Your task to perform on an android device: Open internet settings Image 0: 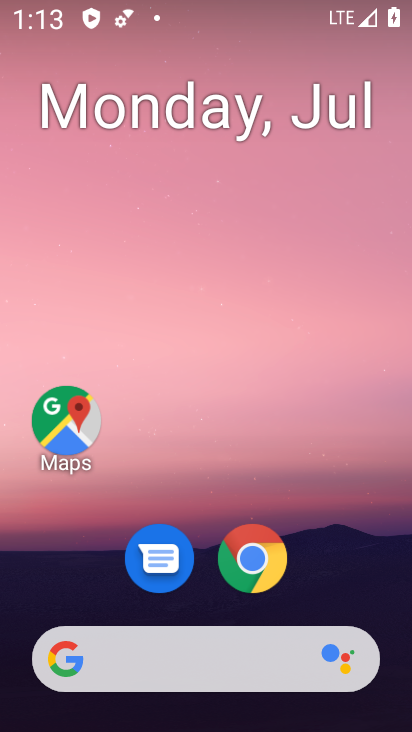
Step 0: drag from (357, 582) to (361, 61)
Your task to perform on an android device: Open internet settings Image 1: 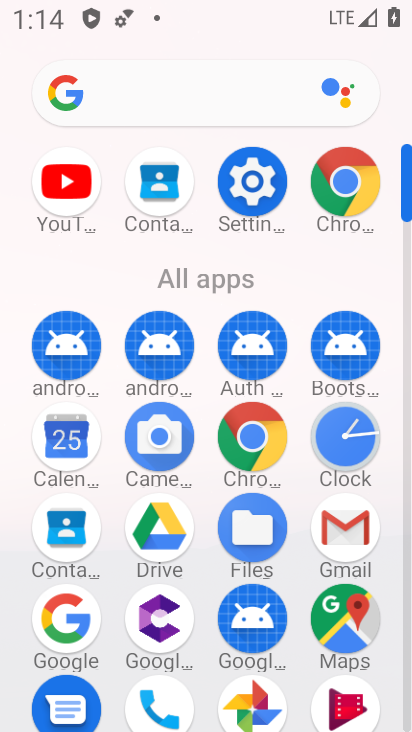
Step 1: click (254, 192)
Your task to perform on an android device: Open internet settings Image 2: 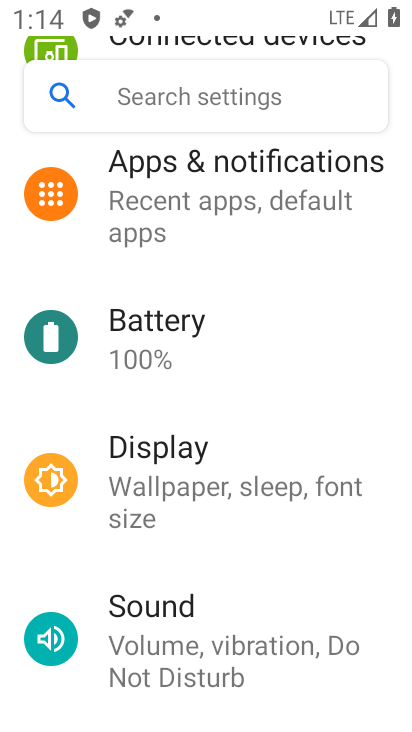
Step 2: drag from (357, 498) to (367, 325)
Your task to perform on an android device: Open internet settings Image 3: 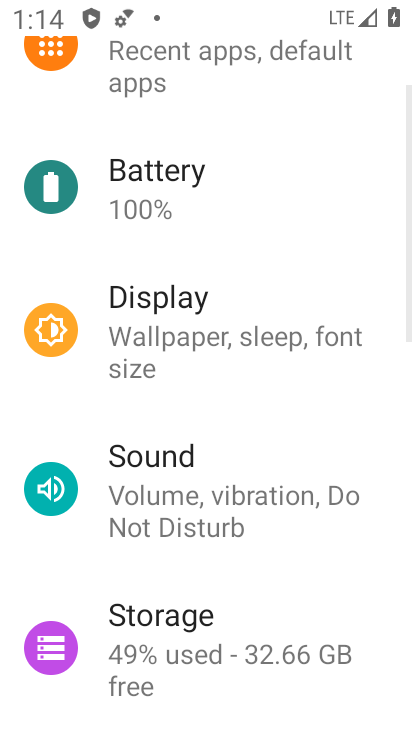
Step 3: drag from (350, 528) to (331, 200)
Your task to perform on an android device: Open internet settings Image 4: 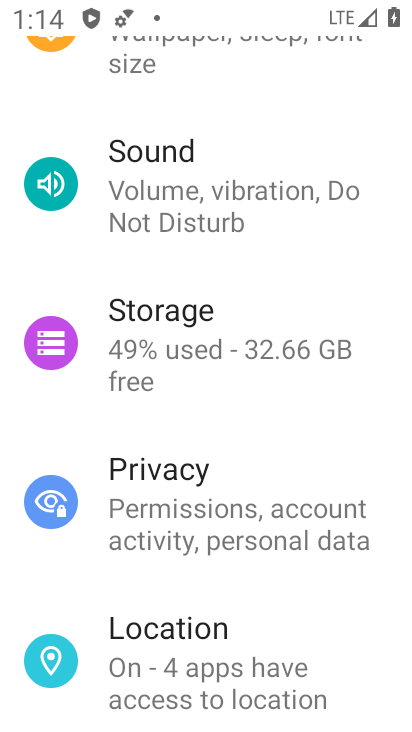
Step 4: drag from (313, 497) to (317, 376)
Your task to perform on an android device: Open internet settings Image 5: 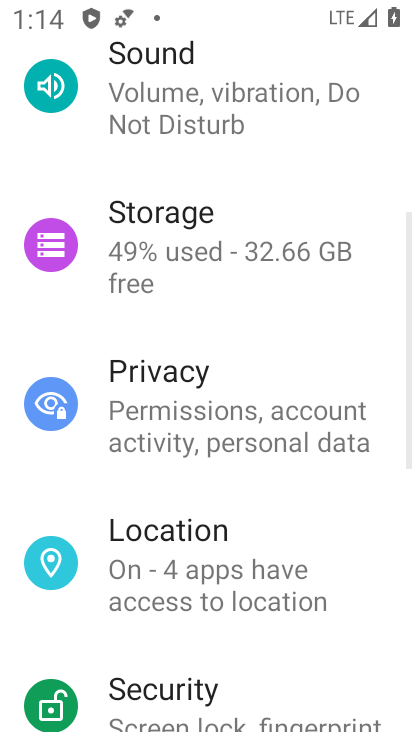
Step 5: drag from (302, 552) to (301, 399)
Your task to perform on an android device: Open internet settings Image 6: 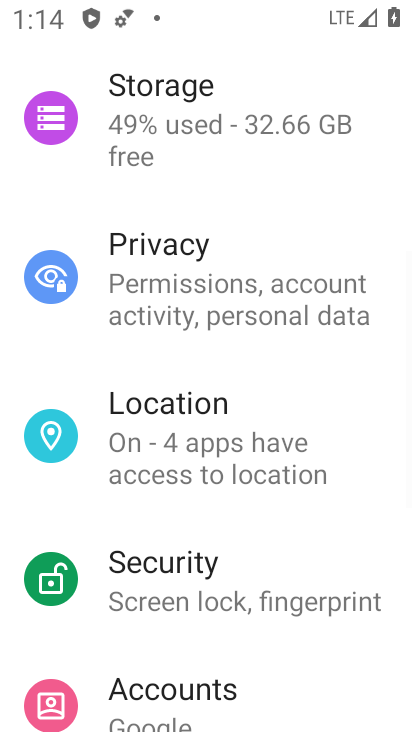
Step 6: drag from (329, 532) to (336, 370)
Your task to perform on an android device: Open internet settings Image 7: 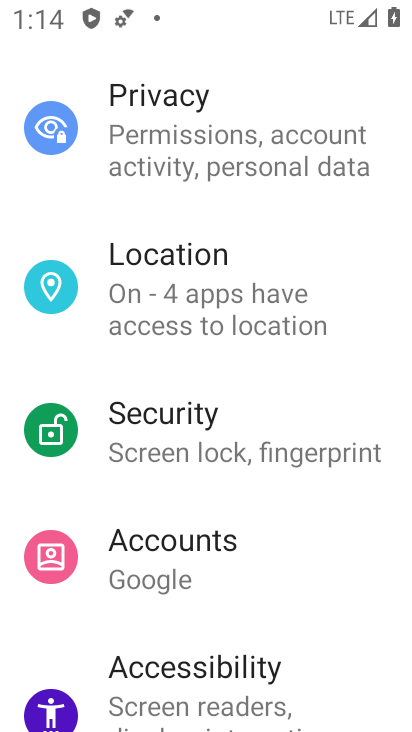
Step 7: drag from (340, 238) to (338, 401)
Your task to perform on an android device: Open internet settings Image 8: 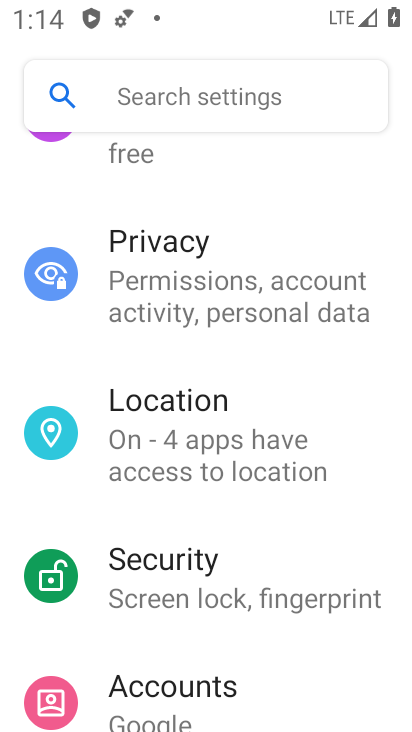
Step 8: drag from (353, 210) to (362, 416)
Your task to perform on an android device: Open internet settings Image 9: 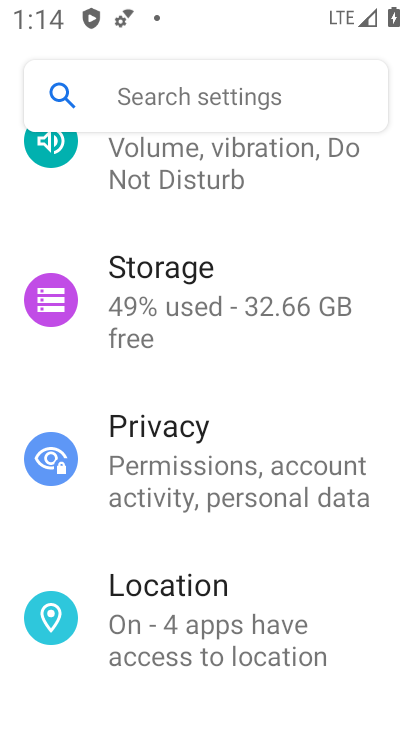
Step 9: drag from (350, 189) to (352, 370)
Your task to perform on an android device: Open internet settings Image 10: 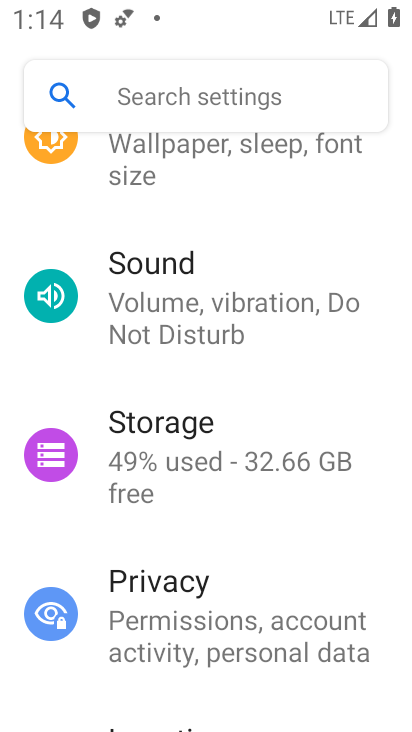
Step 10: drag from (349, 179) to (335, 463)
Your task to perform on an android device: Open internet settings Image 11: 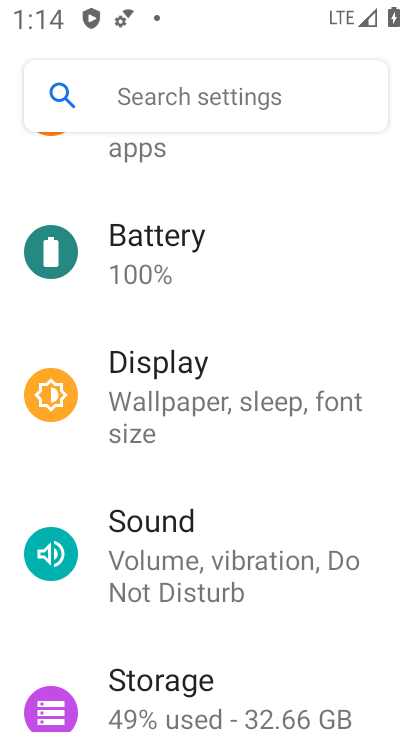
Step 11: drag from (352, 232) to (327, 456)
Your task to perform on an android device: Open internet settings Image 12: 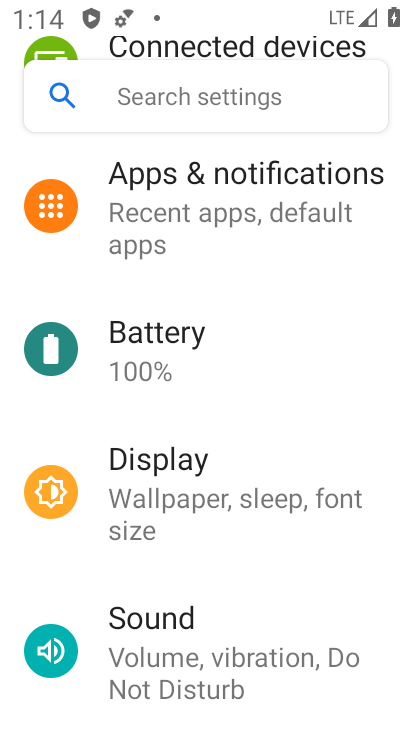
Step 12: drag from (326, 269) to (322, 471)
Your task to perform on an android device: Open internet settings Image 13: 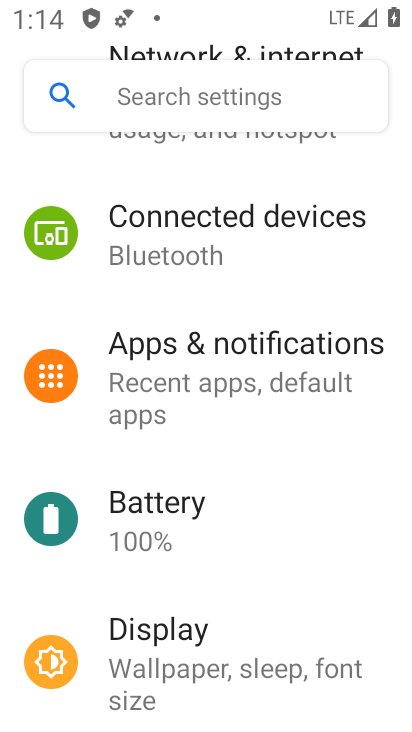
Step 13: drag from (329, 239) to (318, 436)
Your task to perform on an android device: Open internet settings Image 14: 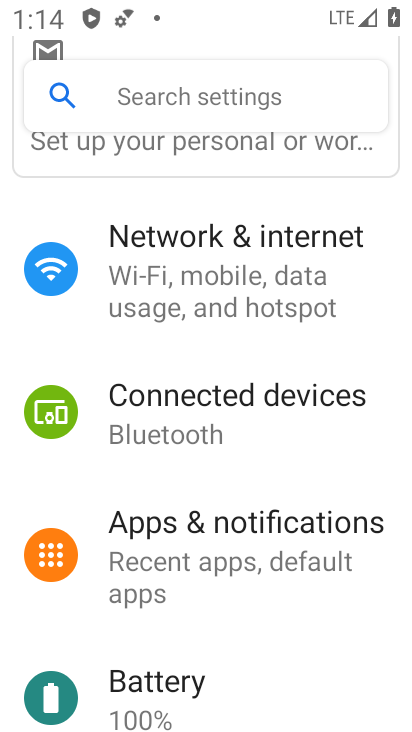
Step 14: click (301, 274)
Your task to perform on an android device: Open internet settings Image 15: 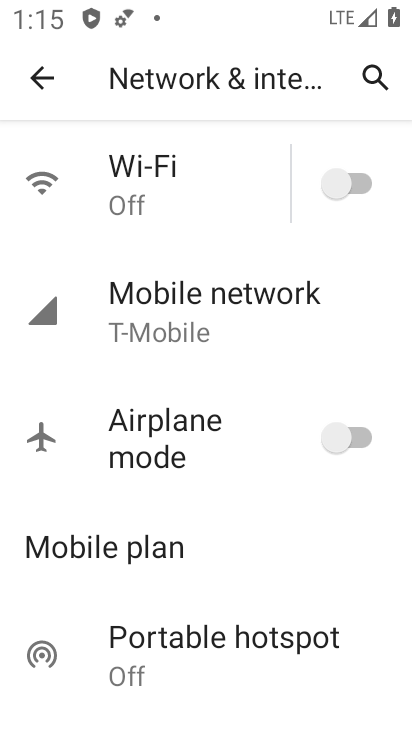
Step 15: task complete